Your task to perform on an android device: Go to network settings Image 0: 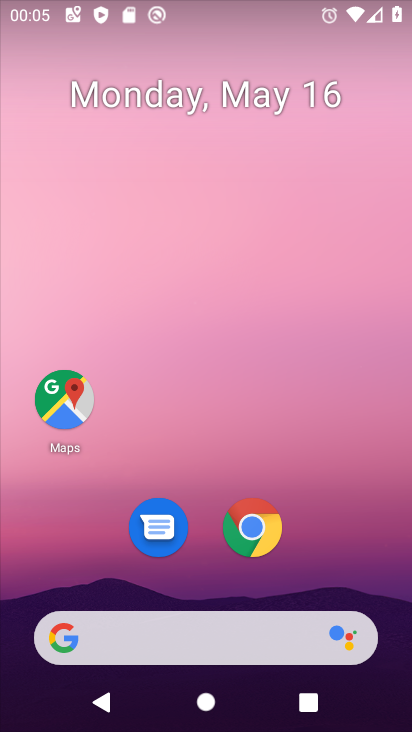
Step 0: drag from (362, 549) to (322, 252)
Your task to perform on an android device: Go to network settings Image 1: 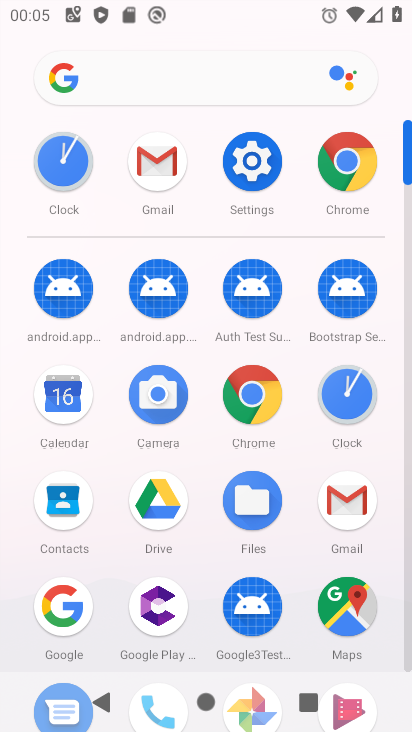
Step 1: click (245, 145)
Your task to perform on an android device: Go to network settings Image 2: 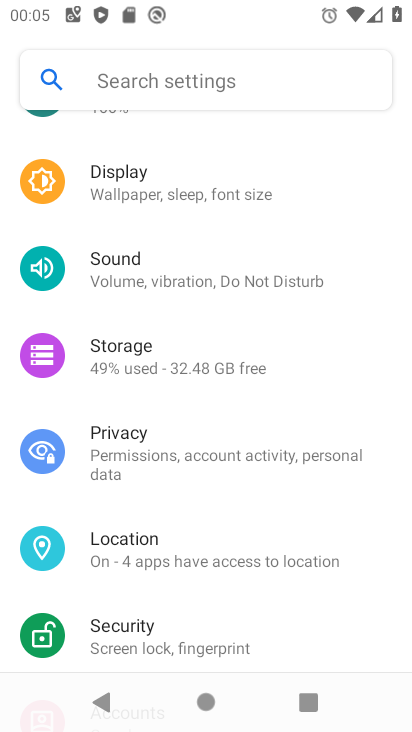
Step 2: drag from (195, 153) to (165, 474)
Your task to perform on an android device: Go to network settings Image 3: 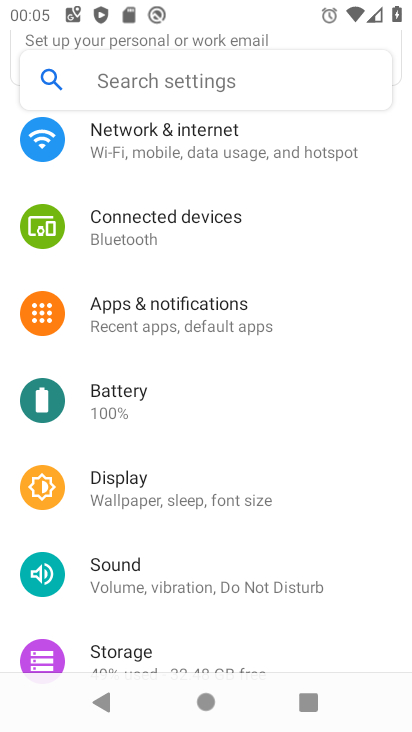
Step 3: click (182, 157)
Your task to perform on an android device: Go to network settings Image 4: 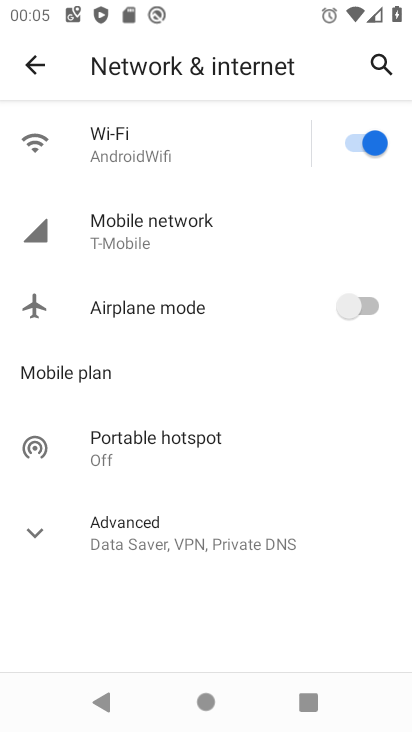
Step 4: task complete